Your task to perform on an android device: turn pop-ups off in chrome Image 0: 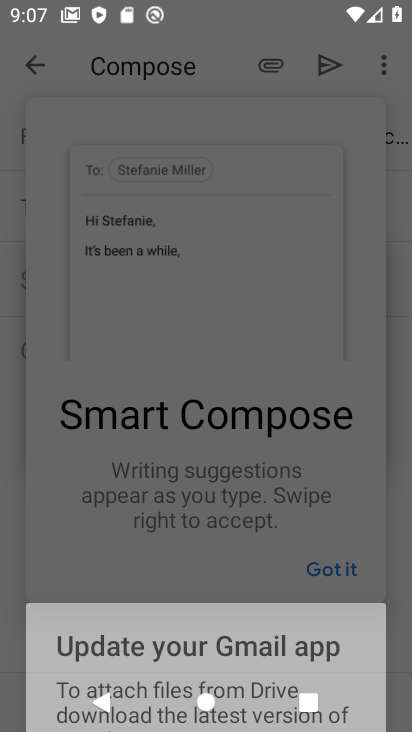
Step 0: press home button
Your task to perform on an android device: turn pop-ups off in chrome Image 1: 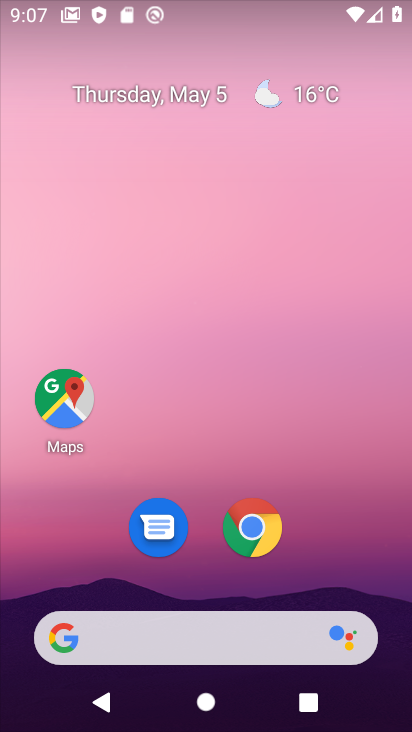
Step 1: click (251, 524)
Your task to perform on an android device: turn pop-ups off in chrome Image 2: 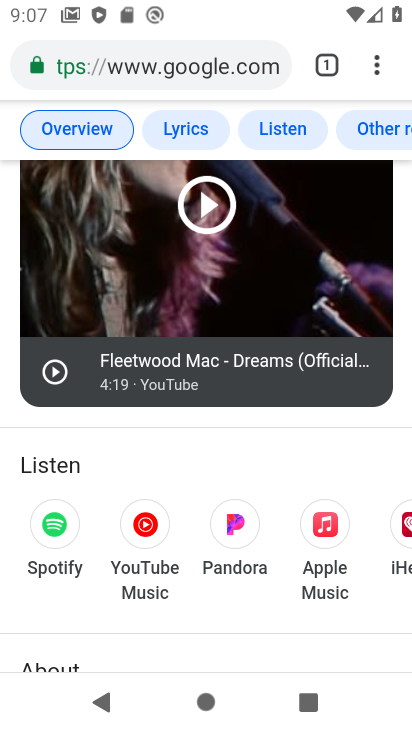
Step 2: click (373, 62)
Your task to perform on an android device: turn pop-ups off in chrome Image 3: 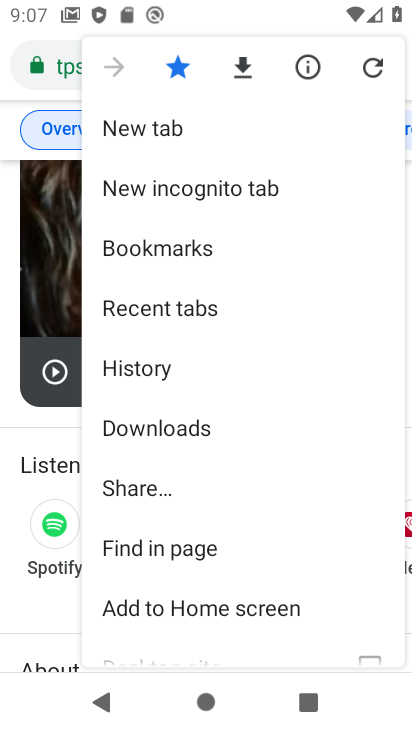
Step 3: drag from (251, 554) to (247, 113)
Your task to perform on an android device: turn pop-ups off in chrome Image 4: 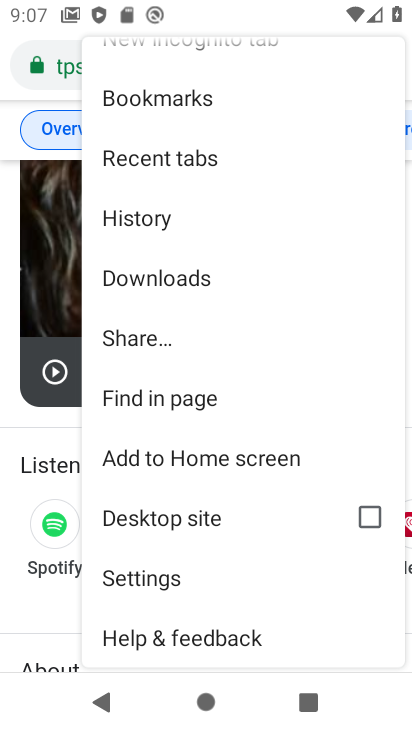
Step 4: click (189, 572)
Your task to perform on an android device: turn pop-ups off in chrome Image 5: 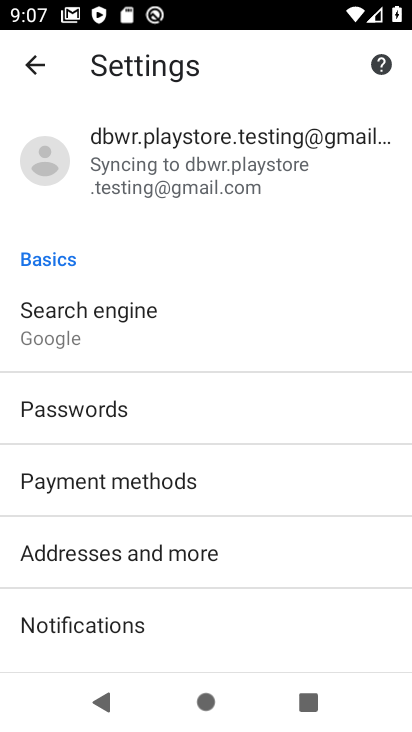
Step 5: drag from (216, 608) to (223, 81)
Your task to perform on an android device: turn pop-ups off in chrome Image 6: 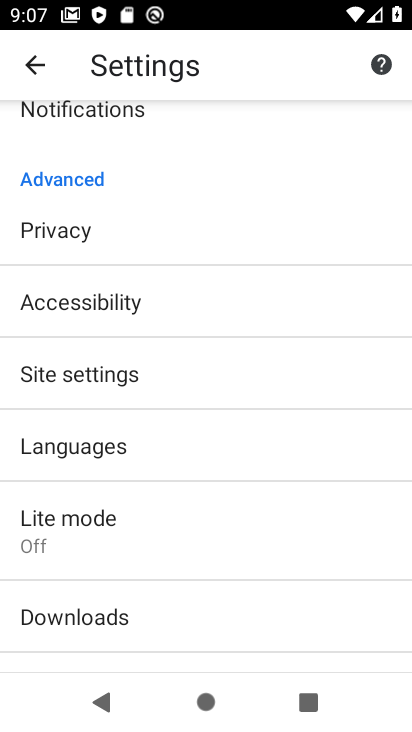
Step 6: click (146, 369)
Your task to perform on an android device: turn pop-ups off in chrome Image 7: 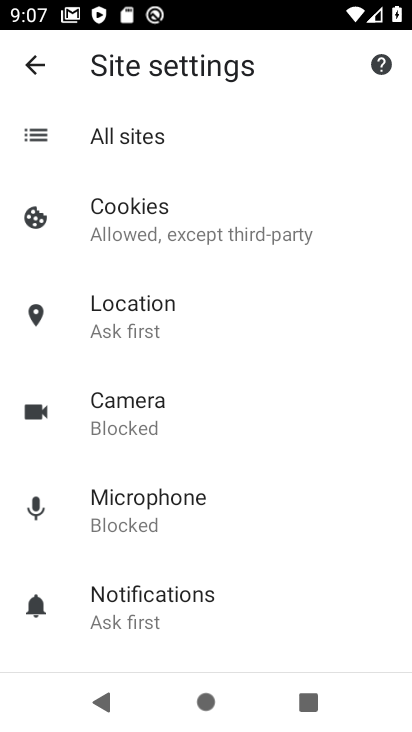
Step 7: drag from (206, 595) to (223, 53)
Your task to perform on an android device: turn pop-ups off in chrome Image 8: 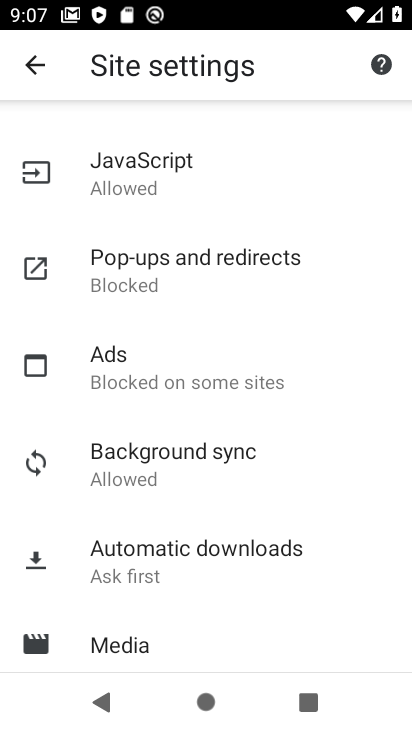
Step 8: click (170, 272)
Your task to perform on an android device: turn pop-ups off in chrome Image 9: 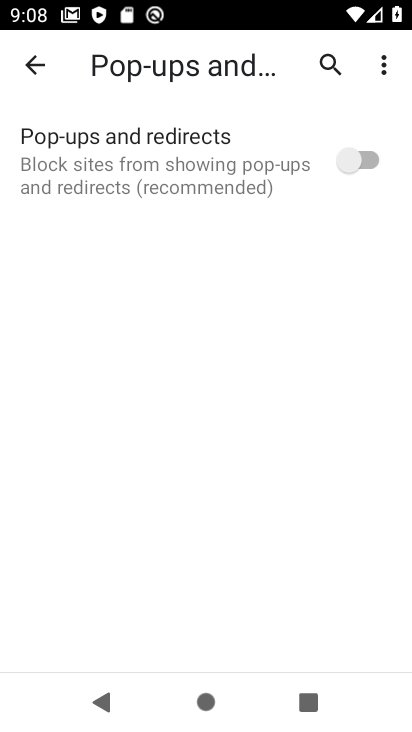
Step 9: task complete